Your task to perform on an android device: What's on my calendar tomorrow? Image 0: 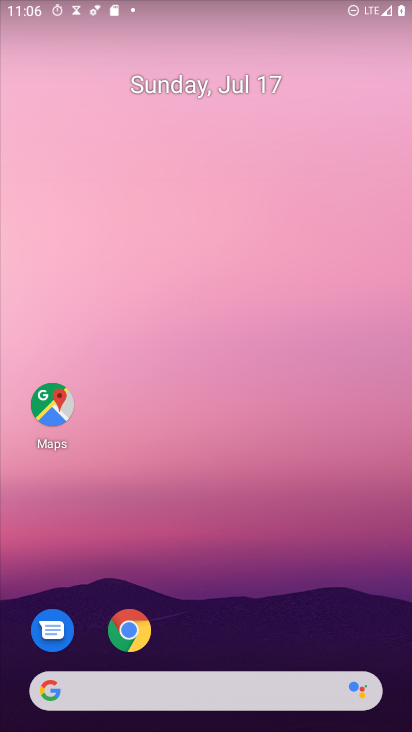
Step 0: drag from (182, 703) to (209, 152)
Your task to perform on an android device: What's on my calendar tomorrow? Image 1: 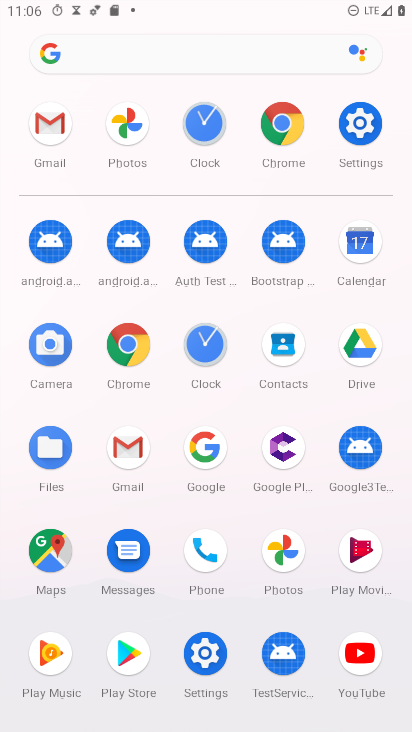
Step 1: click (349, 245)
Your task to perform on an android device: What's on my calendar tomorrow? Image 2: 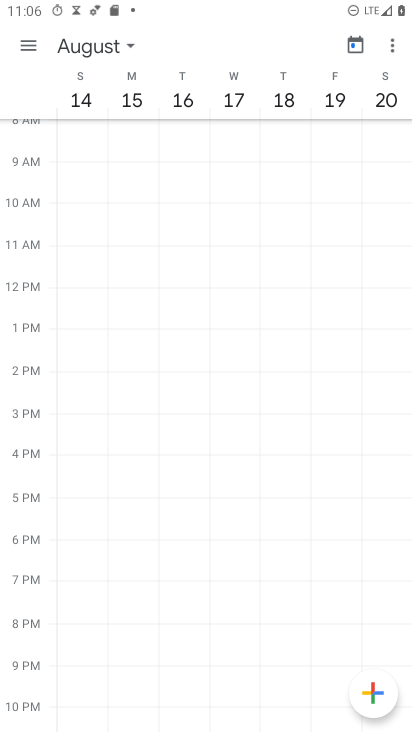
Step 2: click (130, 38)
Your task to perform on an android device: What's on my calendar tomorrow? Image 3: 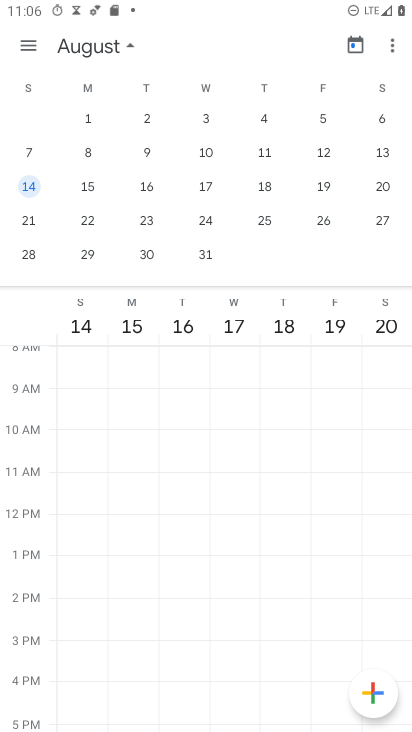
Step 3: drag from (81, 192) to (394, 160)
Your task to perform on an android device: What's on my calendar tomorrow? Image 4: 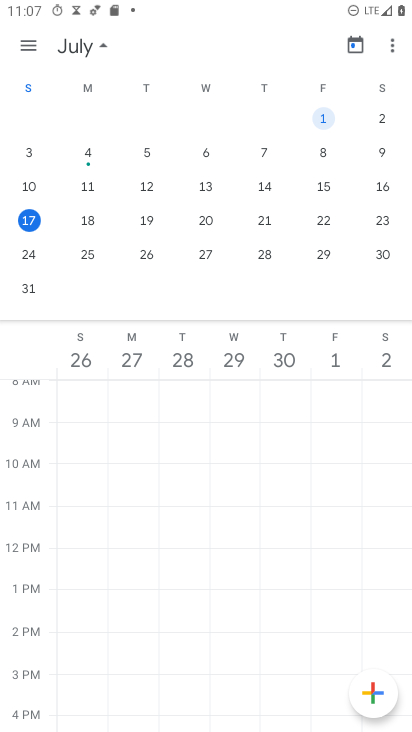
Step 4: click (151, 218)
Your task to perform on an android device: What's on my calendar tomorrow? Image 5: 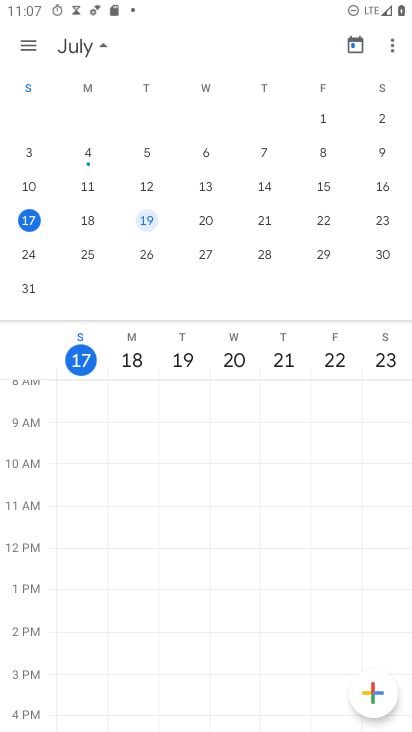
Step 5: task complete